Your task to perform on an android device: Clear the shopping cart on walmart.com. Add "macbook air" to the cart on walmart.com, then select checkout. Image 0: 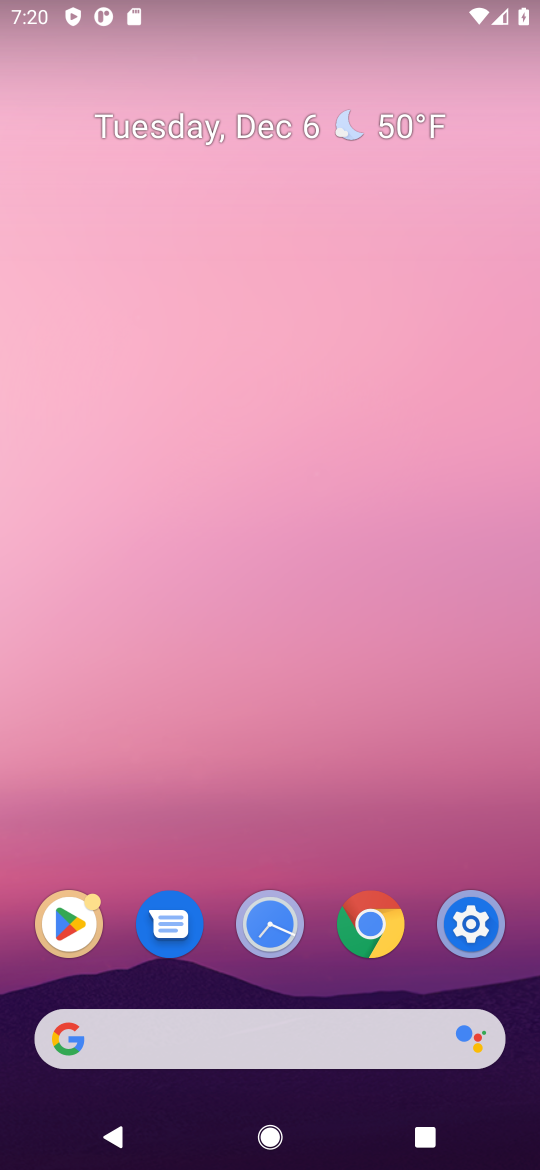
Step 0: click (226, 1051)
Your task to perform on an android device: Clear the shopping cart on walmart.com. Add "macbook air" to the cart on walmart.com, then select checkout. Image 1: 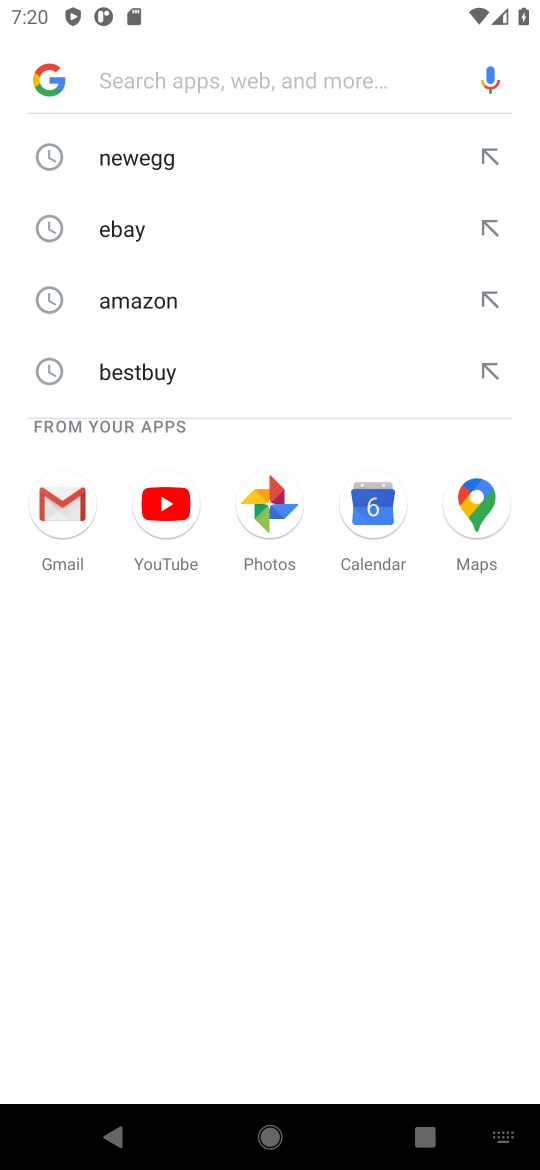
Step 1: type "walmart"
Your task to perform on an android device: Clear the shopping cart on walmart.com. Add "macbook air" to the cart on walmart.com, then select checkout. Image 2: 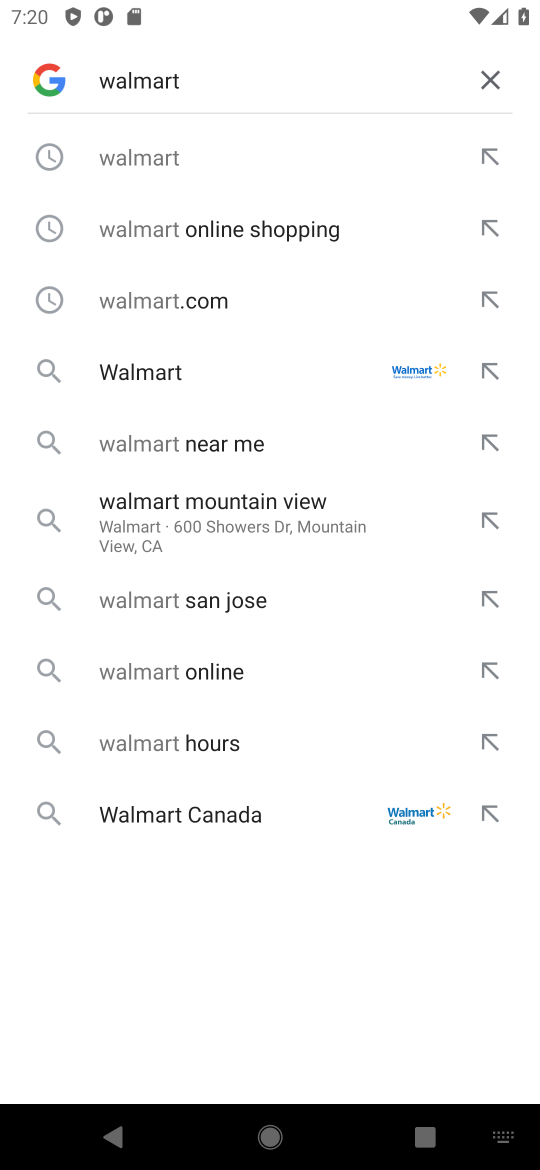
Step 2: click (177, 172)
Your task to perform on an android device: Clear the shopping cart on walmart.com. Add "macbook air" to the cart on walmart.com, then select checkout. Image 3: 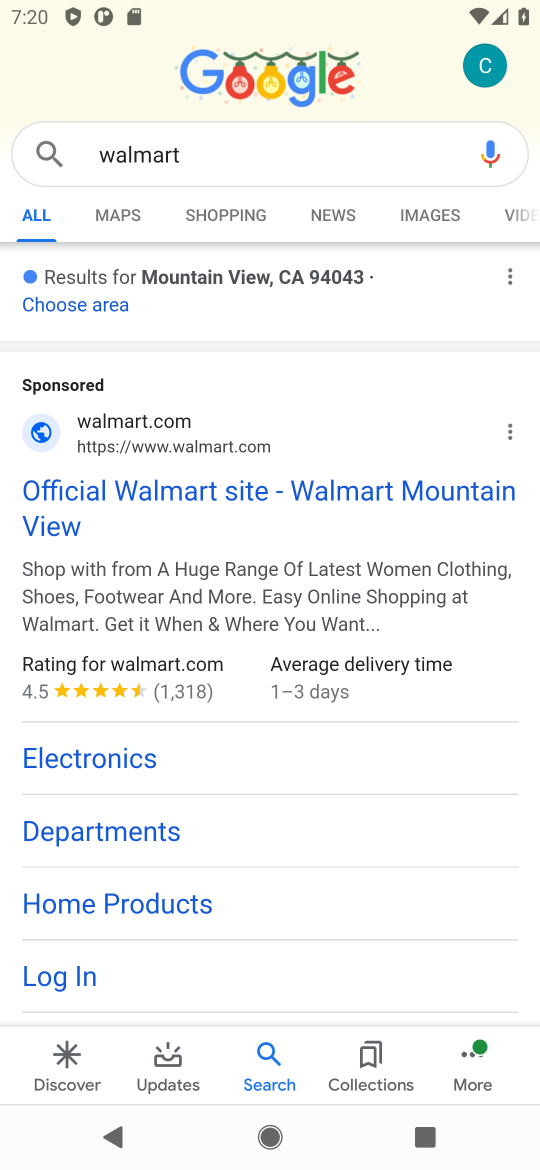
Step 3: click (163, 470)
Your task to perform on an android device: Clear the shopping cart on walmart.com. Add "macbook air" to the cart on walmart.com, then select checkout. Image 4: 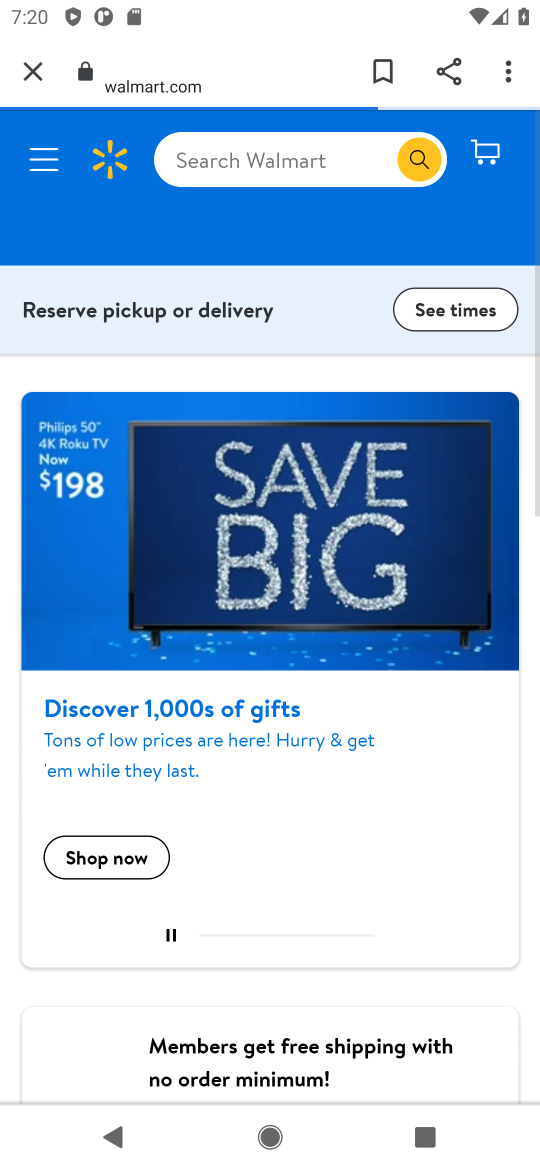
Step 4: click (163, 470)
Your task to perform on an android device: Clear the shopping cart on walmart.com. Add "macbook air" to the cart on walmart.com, then select checkout. Image 5: 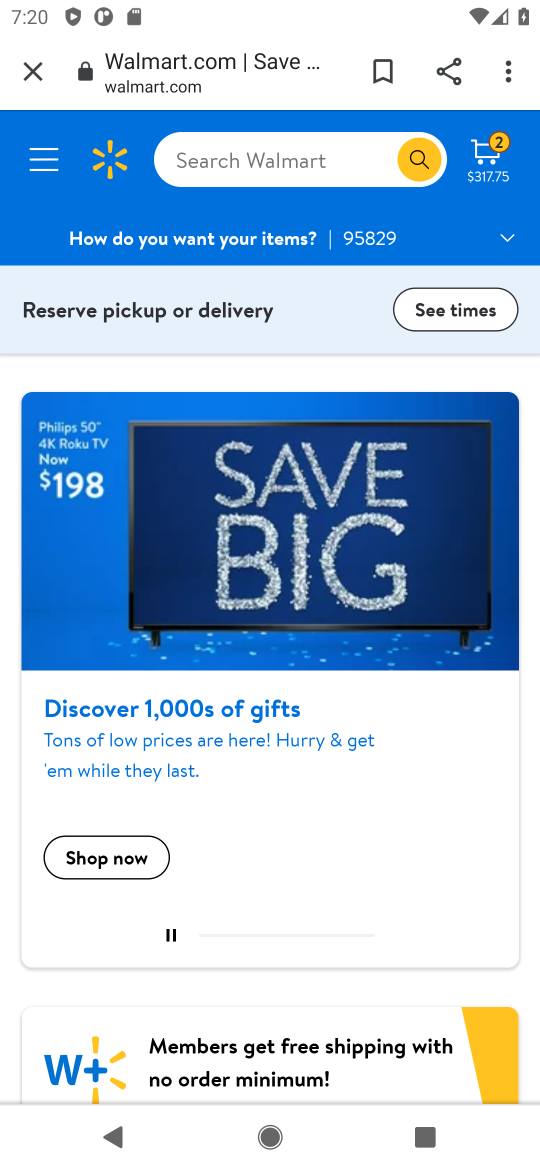
Step 5: click (209, 139)
Your task to perform on an android device: Clear the shopping cart on walmart.com. Add "macbook air" to the cart on walmart.com, then select checkout. Image 6: 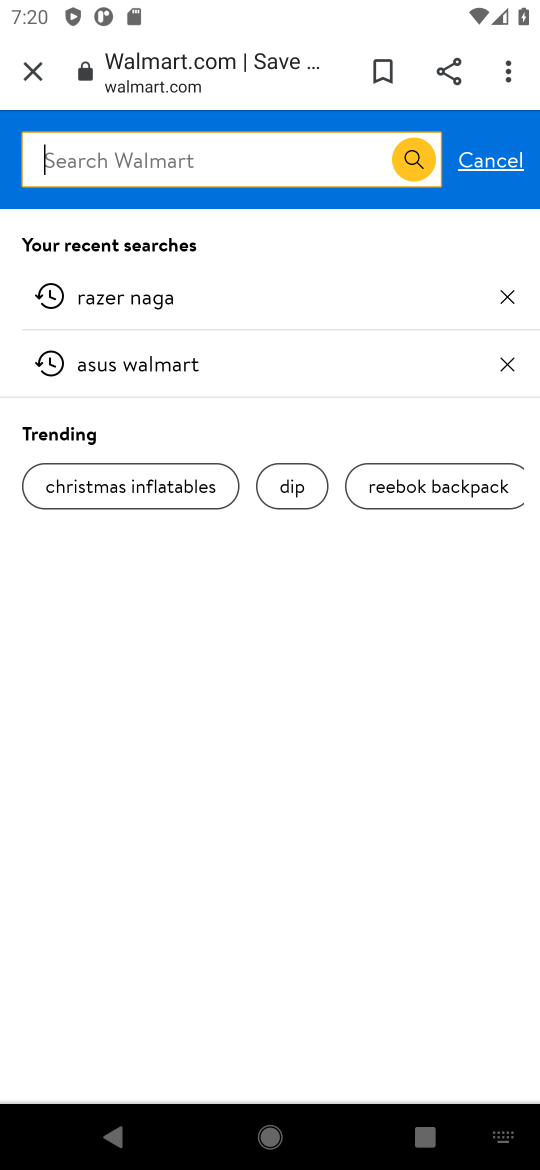
Step 6: type "macbook air"
Your task to perform on an android device: Clear the shopping cart on walmart.com. Add "macbook air" to the cart on walmart.com, then select checkout. Image 7: 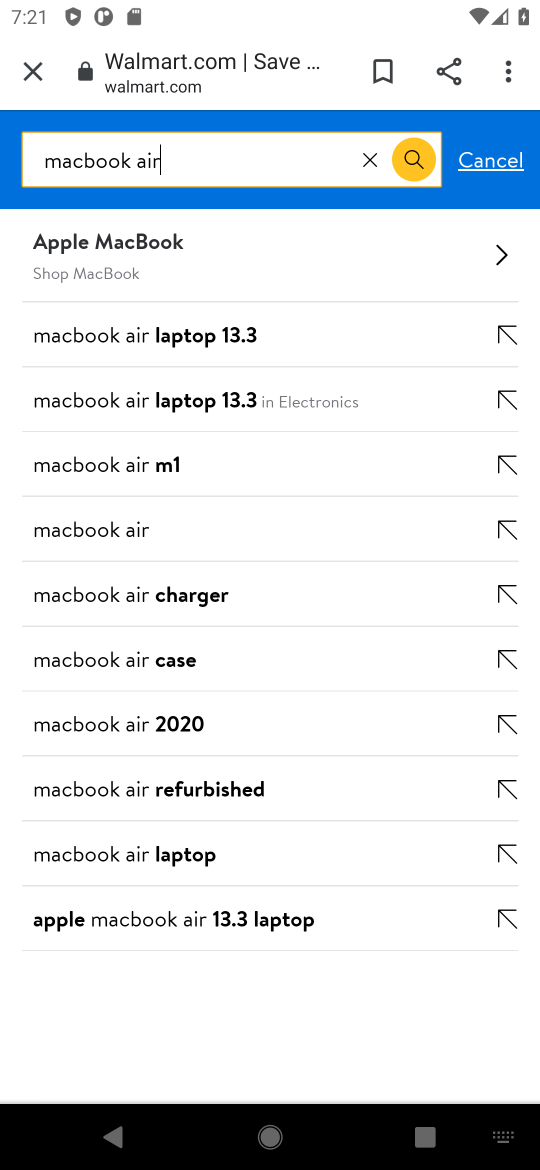
Step 7: click (86, 248)
Your task to perform on an android device: Clear the shopping cart on walmart.com. Add "macbook air" to the cart on walmart.com, then select checkout. Image 8: 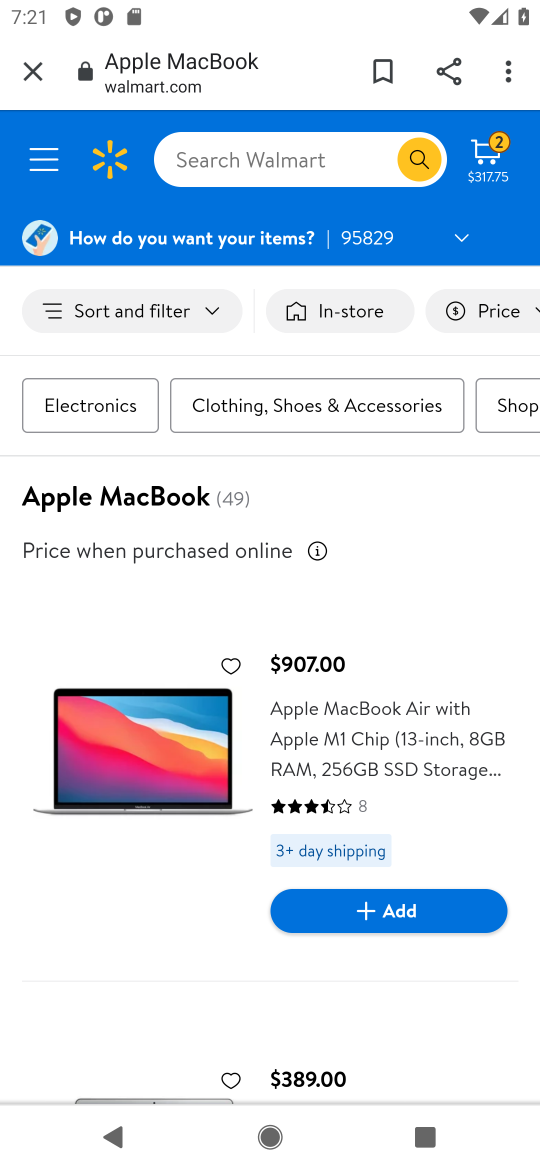
Step 8: click (448, 929)
Your task to perform on an android device: Clear the shopping cart on walmart.com. Add "macbook air" to the cart on walmart.com, then select checkout. Image 9: 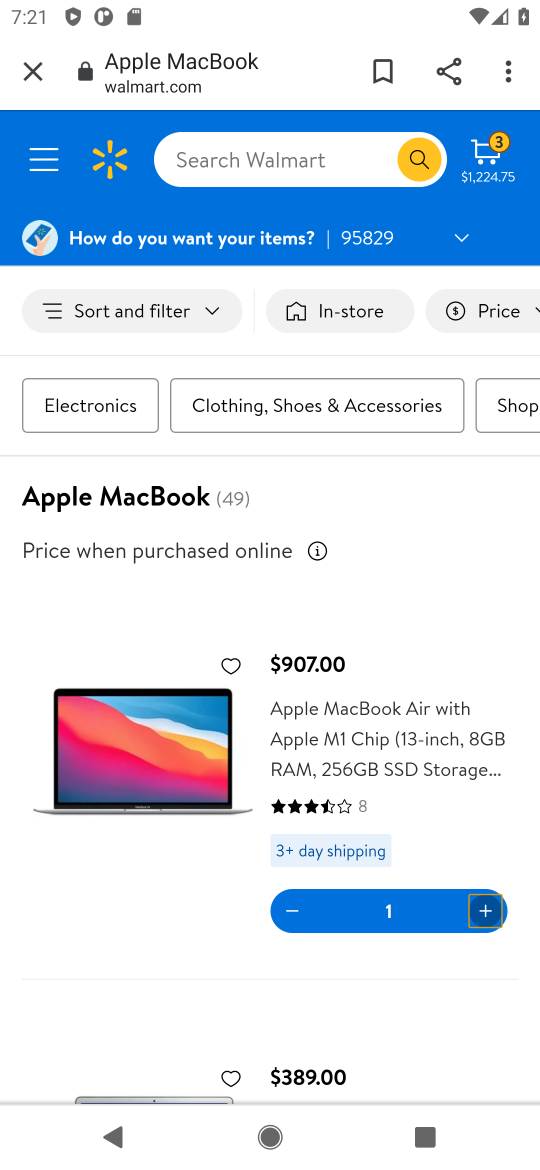
Step 9: task complete